Your task to perform on an android device: Show me popular games on the Play Store Image 0: 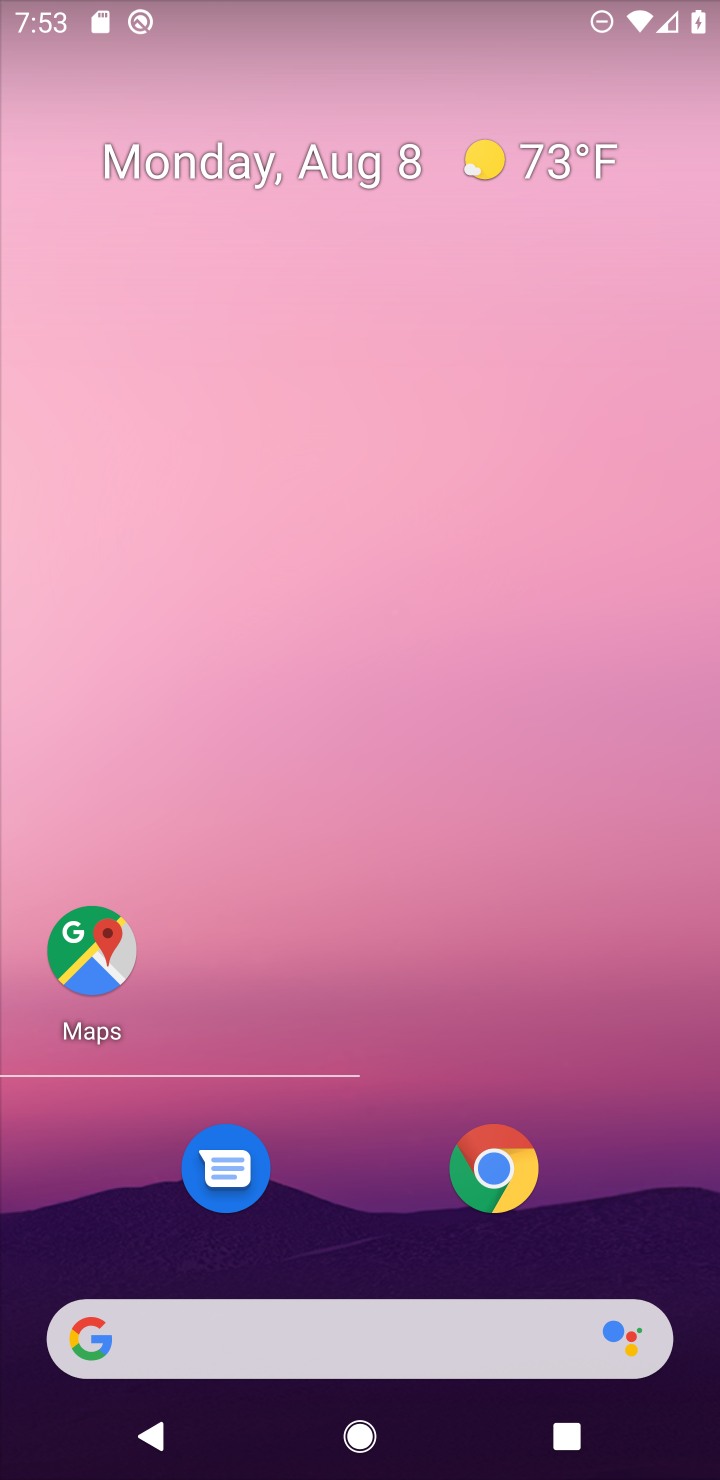
Step 0: press home button
Your task to perform on an android device: Show me popular games on the Play Store Image 1: 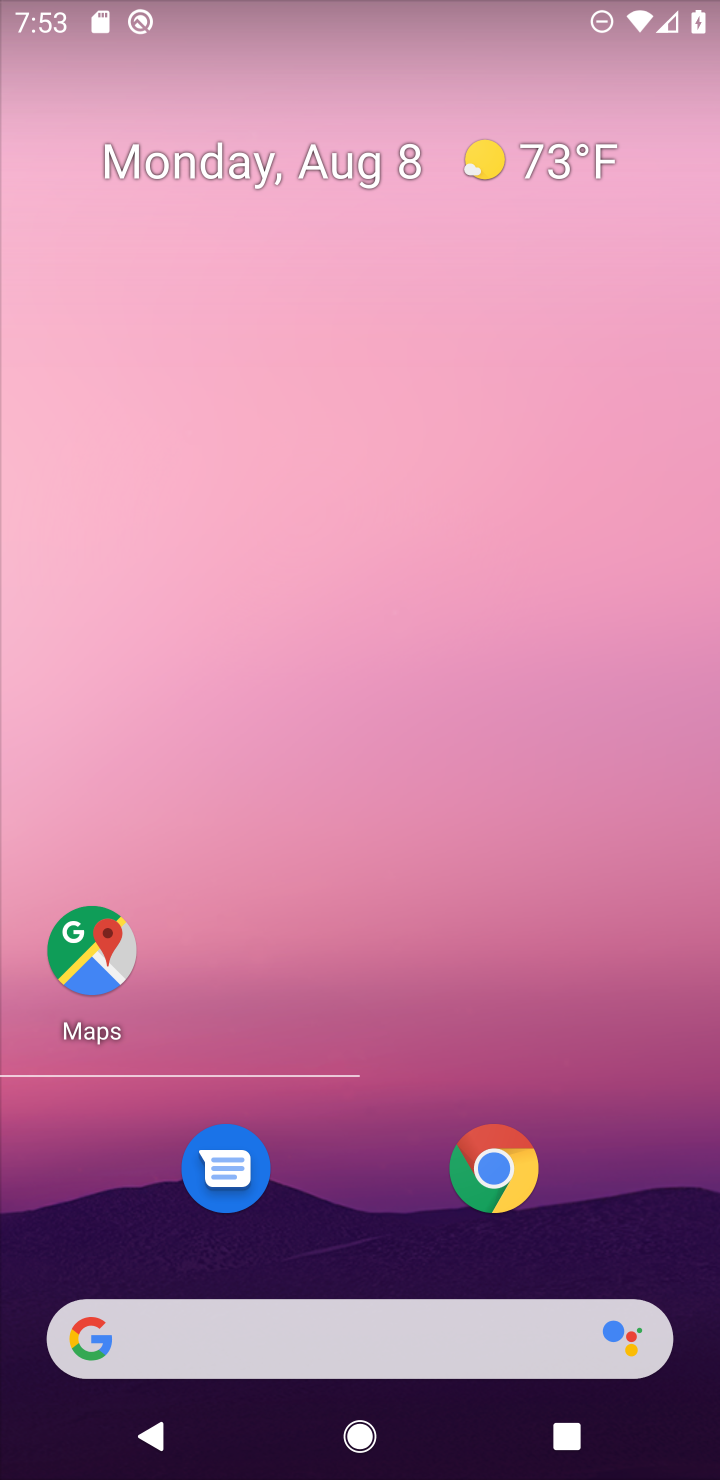
Step 1: drag from (327, 1205) to (339, 297)
Your task to perform on an android device: Show me popular games on the Play Store Image 2: 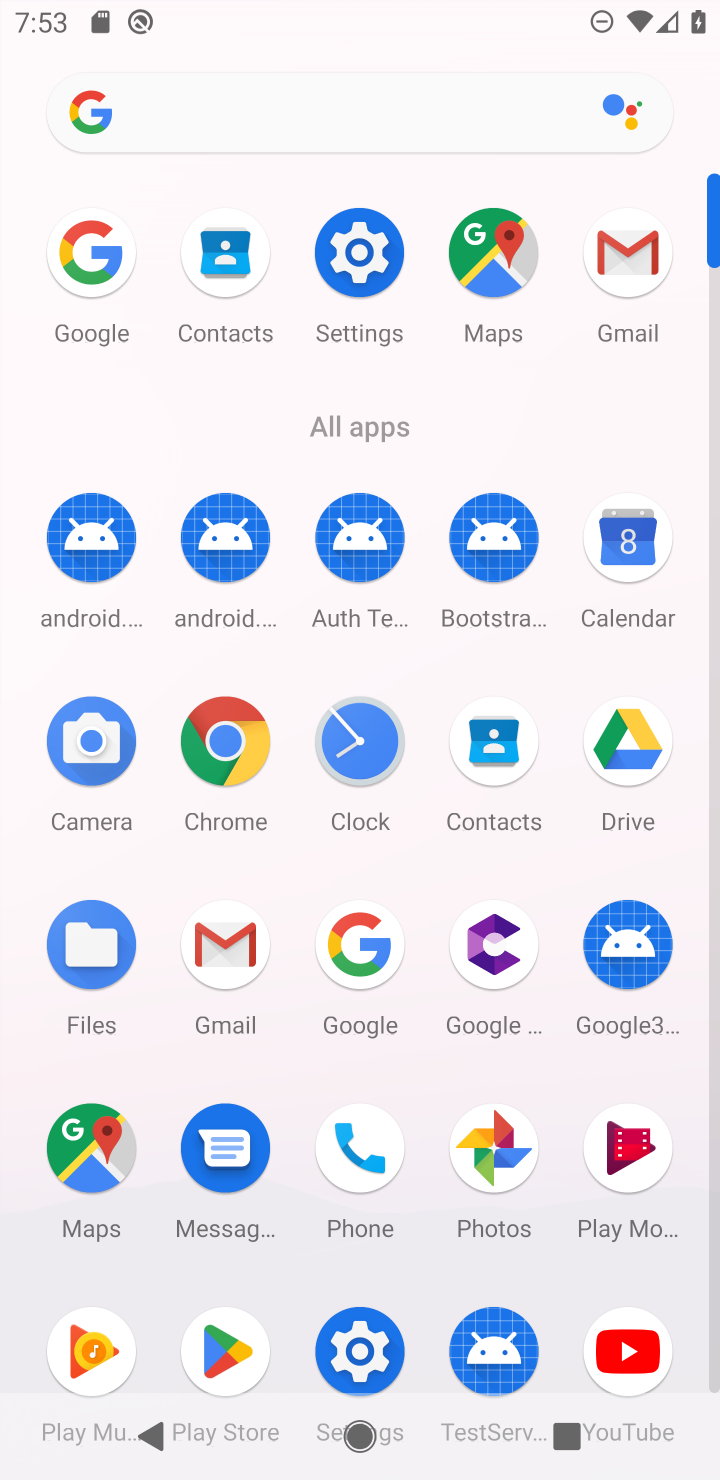
Step 2: click (224, 1349)
Your task to perform on an android device: Show me popular games on the Play Store Image 3: 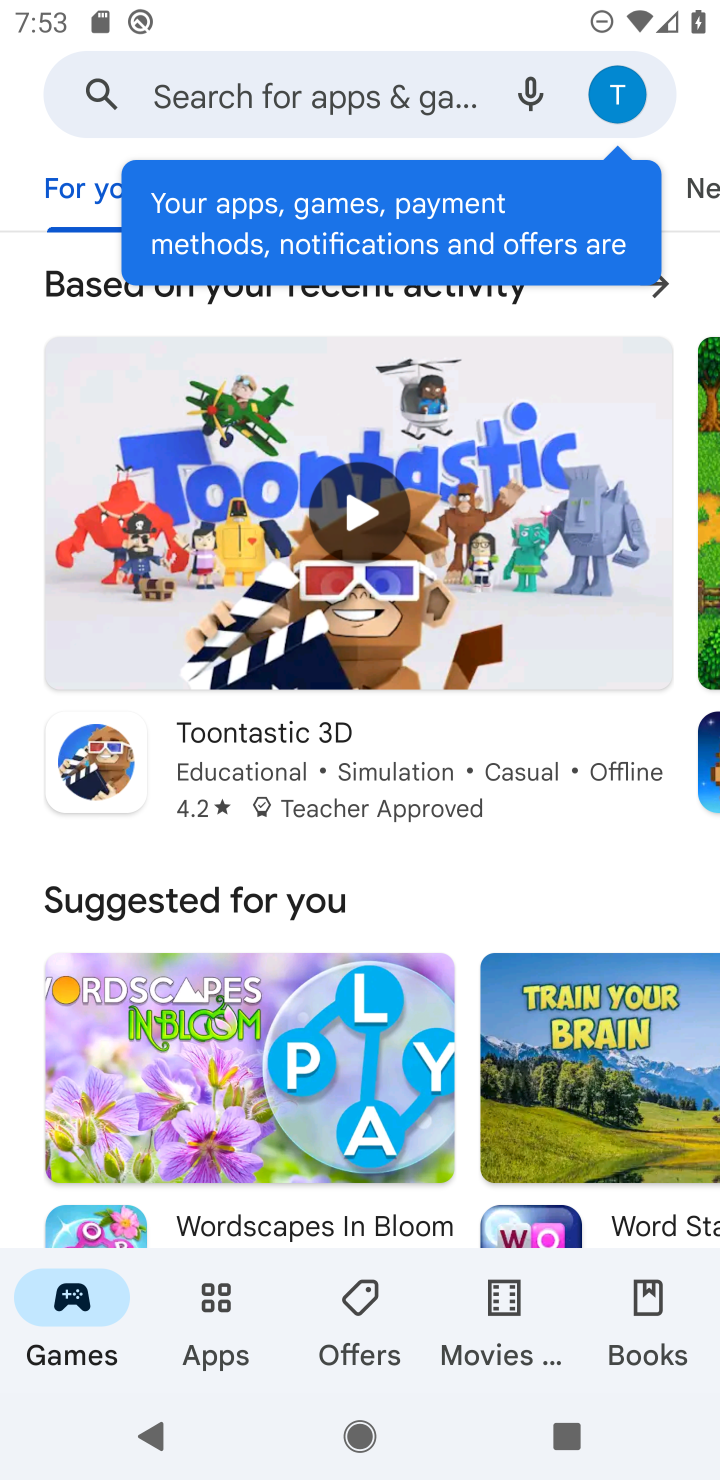
Step 3: task complete